Your task to perform on an android device: Do I have any events tomorrow? Image 0: 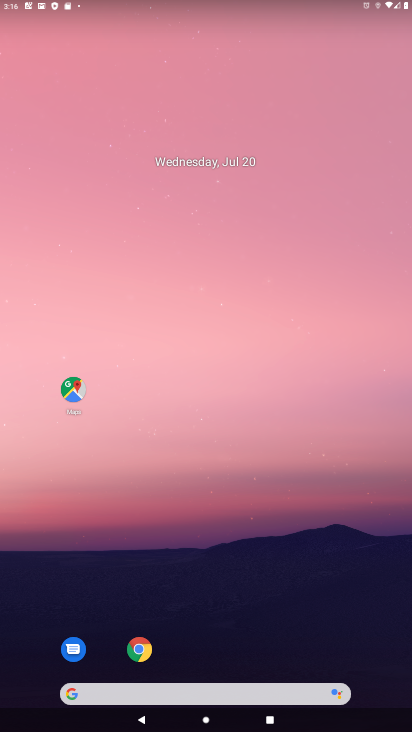
Step 0: drag from (215, 694) to (380, 121)
Your task to perform on an android device: Do I have any events tomorrow? Image 1: 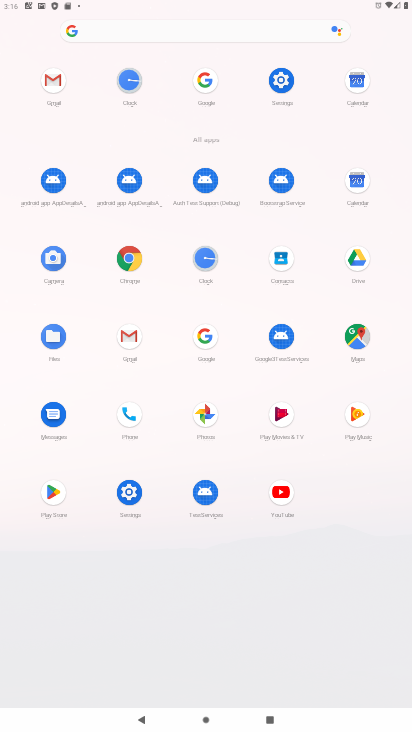
Step 1: click (361, 181)
Your task to perform on an android device: Do I have any events tomorrow? Image 2: 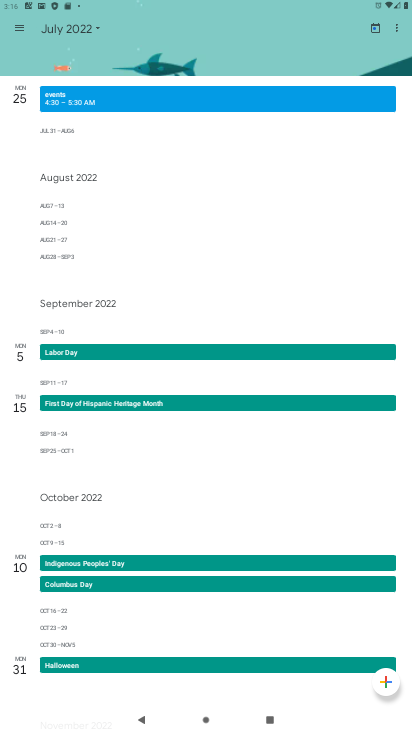
Step 2: click (375, 28)
Your task to perform on an android device: Do I have any events tomorrow? Image 3: 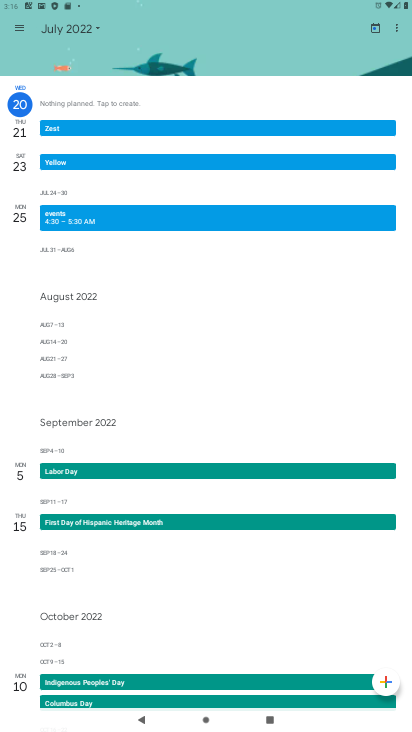
Step 3: click (96, 27)
Your task to perform on an android device: Do I have any events tomorrow? Image 4: 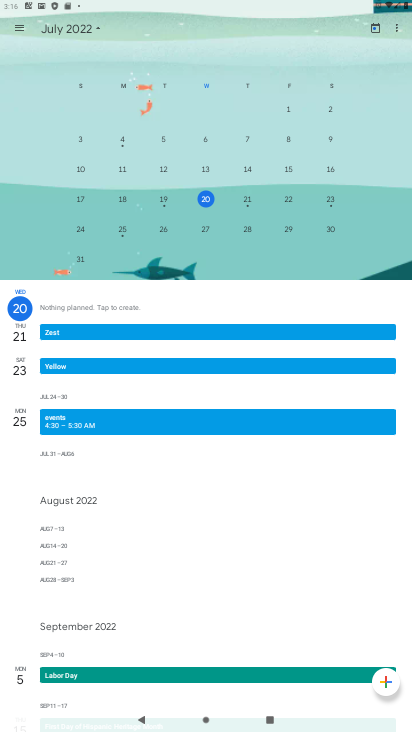
Step 4: click (251, 200)
Your task to perform on an android device: Do I have any events tomorrow? Image 5: 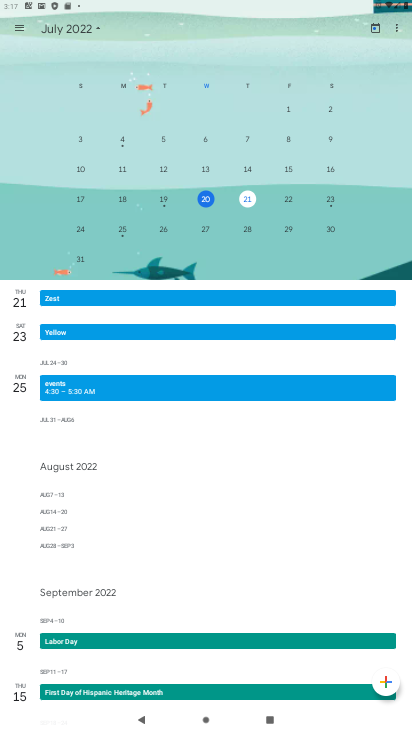
Step 5: click (16, 29)
Your task to perform on an android device: Do I have any events tomorrow? Image 6: 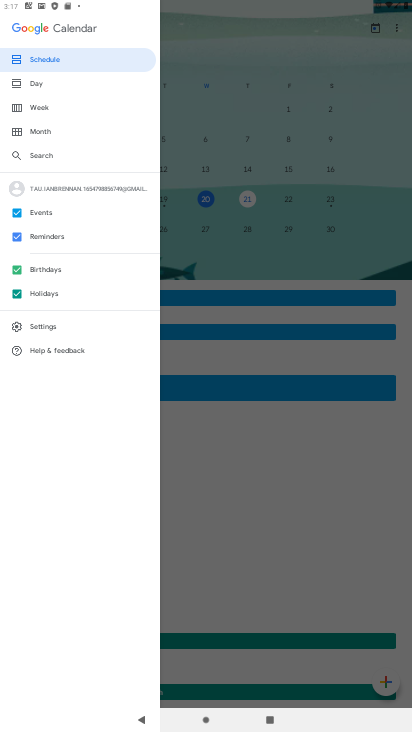
Step 6: click (35, 60)
Your task to perform on an android device: Do I have any events tomorrow? Image 7: 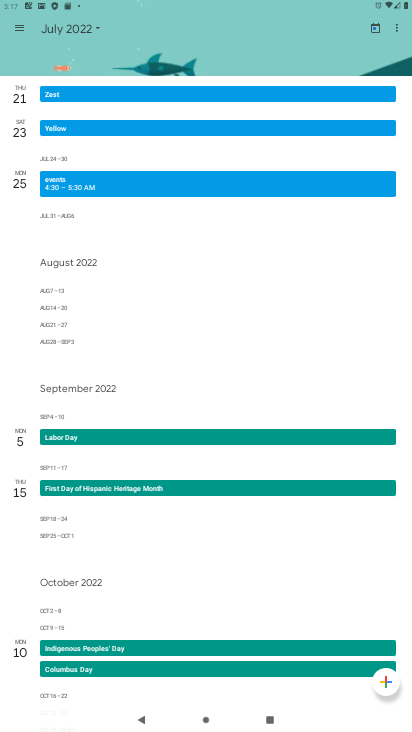
Step 7: task complete